Your task to perform on an android device: Go to internet settings Image 0: 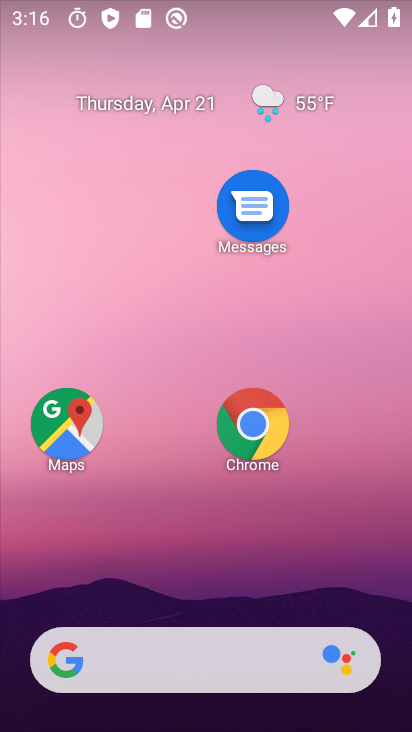
Step 0: drag from (195, 570) to (176, 168)
Your task to perform on an android device: Go to internet settings Image 1: 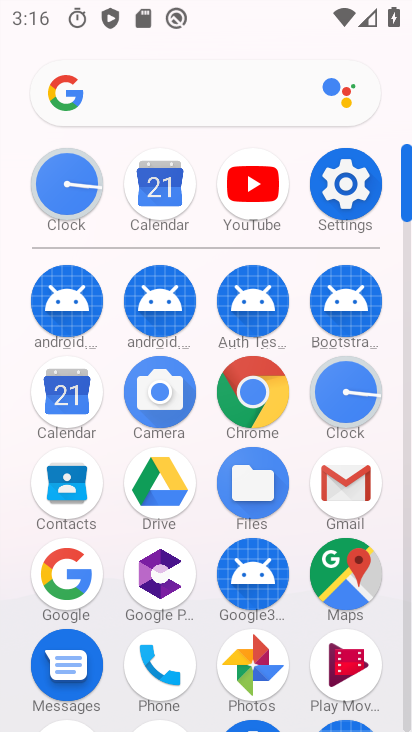
Step 1: click (346, 179)
Your task to perform on an android device: Go to internet settings Image 2: 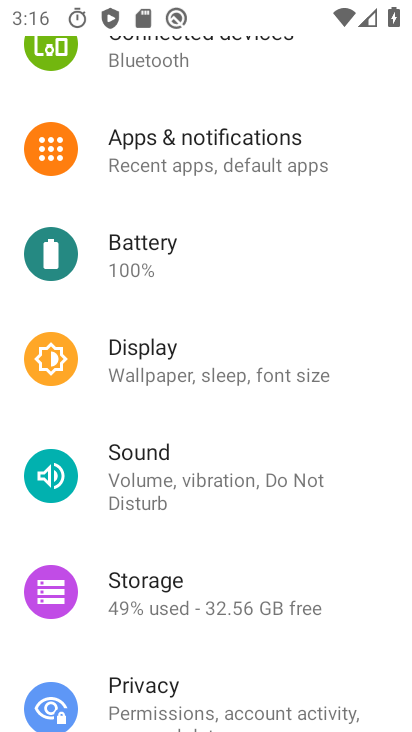
Step 2: drag from (173, 122) to (190, 619)
Your task to perform on an android device: Go to internet settings Image 3: 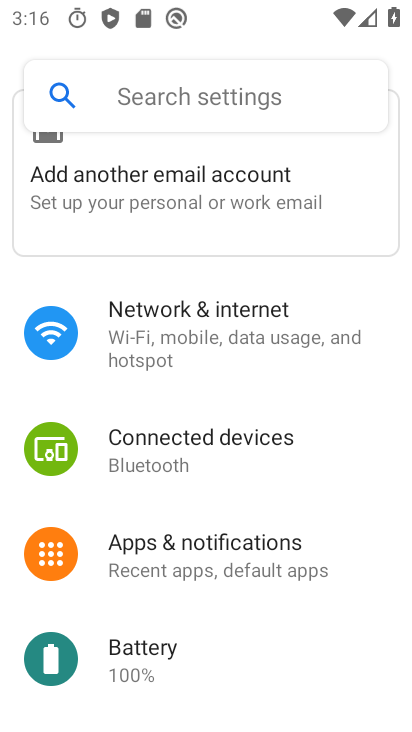
Step 3: click (225, 319)
Your task to perform on an android device: Go to internet settings Image 4: 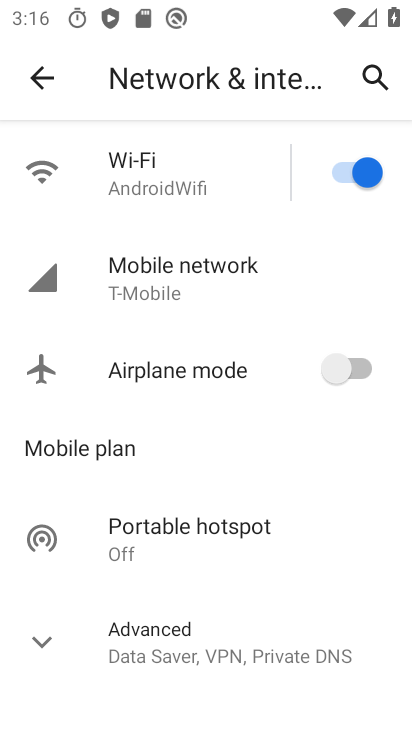
Step 4: drag from (233, 573) to (206, 290)
Your task to perform on an android device: Go to internet settings Image 5: 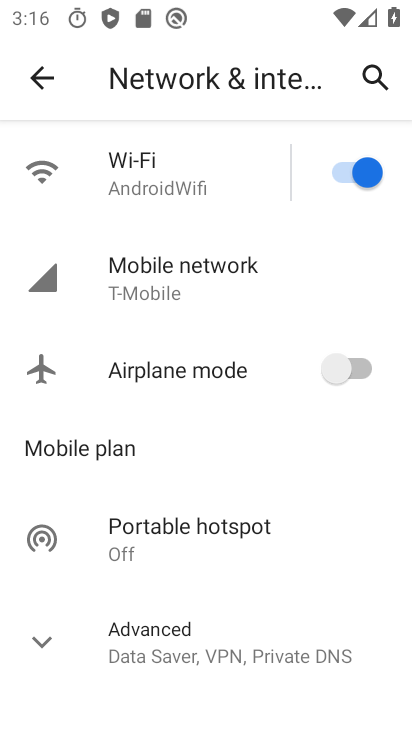
Step 5: click (170, 171)
Your task to perform on an android device: Go to internet settings Image 6: 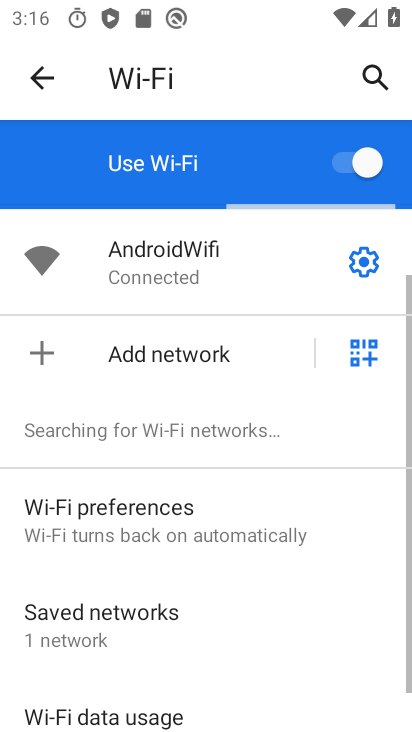
Step 6: click (369, 264)
Your task to perform on an android device: Go to internet settings Image 7: 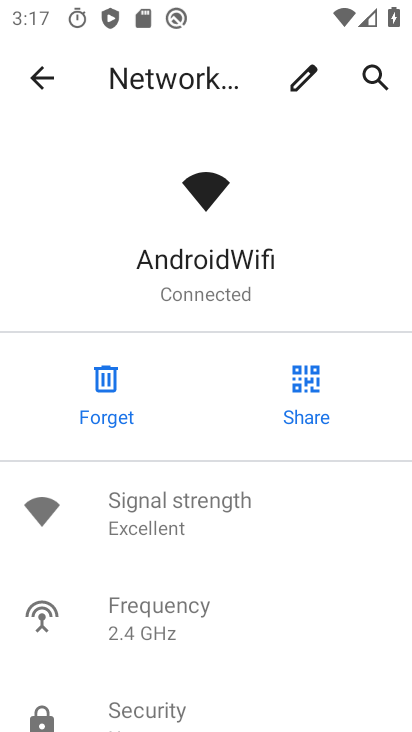
Step 7: task complete